Your task to perform on an android device: check data usage Image 0: 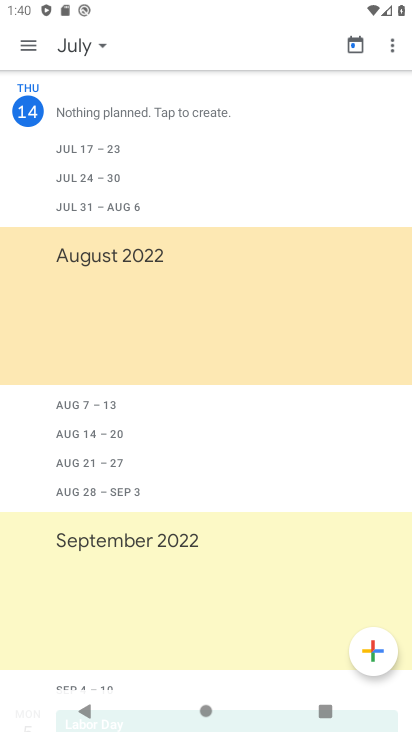
Step 0: press home button
Your task to perform on an android device: check data usage Image 1: 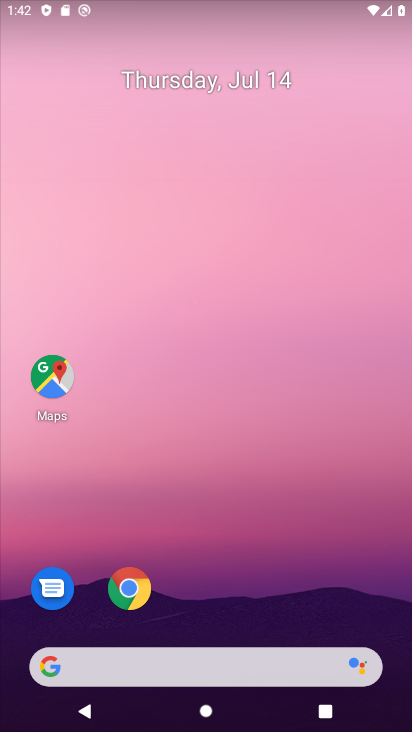
Step 1: drag from (238, 709) to (212, 99)
Your task to perform on an android device: check data usage Image 2: 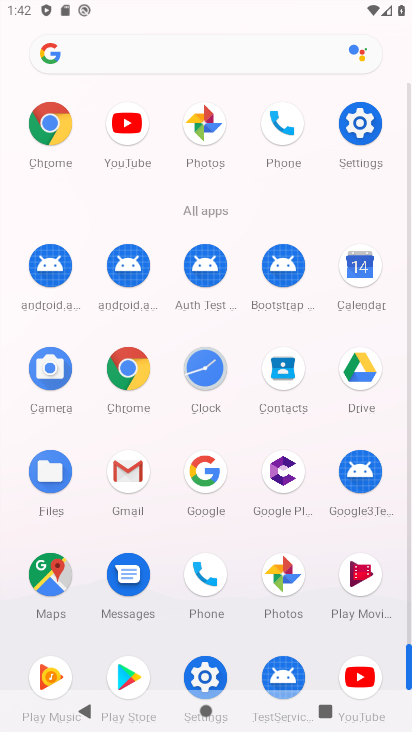
Step 2: click (381, 124)
Your task to perform on an android device: check data usage Image 3: 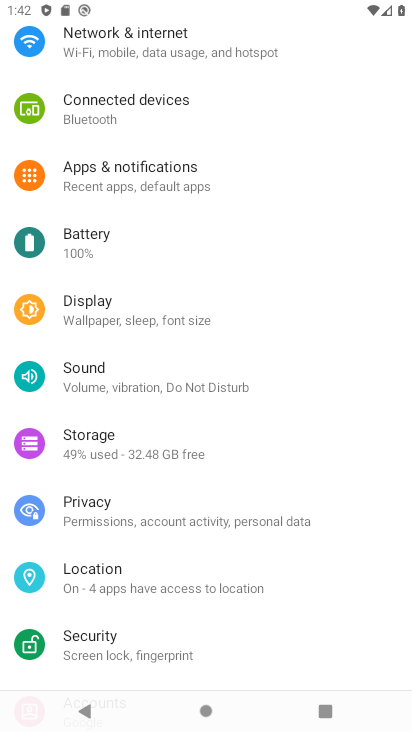
Step 3: click (180, 59)
Your task to perform on an android device: check data usage Image 4: 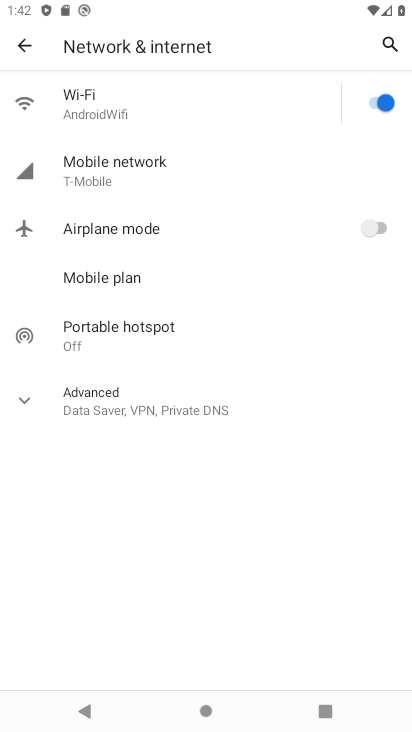
Step 4: click (126, 158)
Your task to perform on an android device: check data usage Image 5: 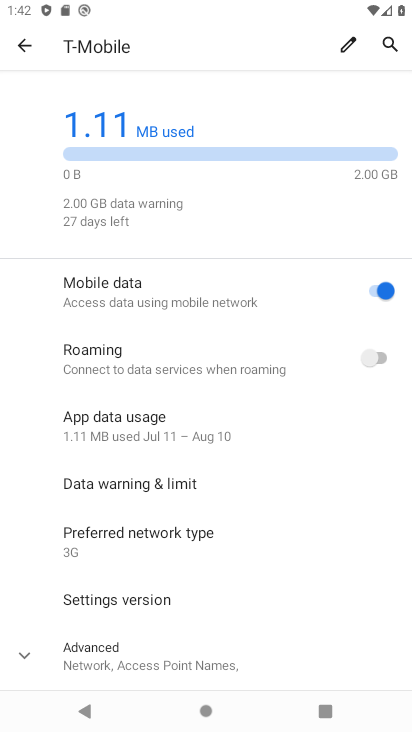
Step 5: task complete